Your task to perform on an android device: change the clock display to digital Image 0: 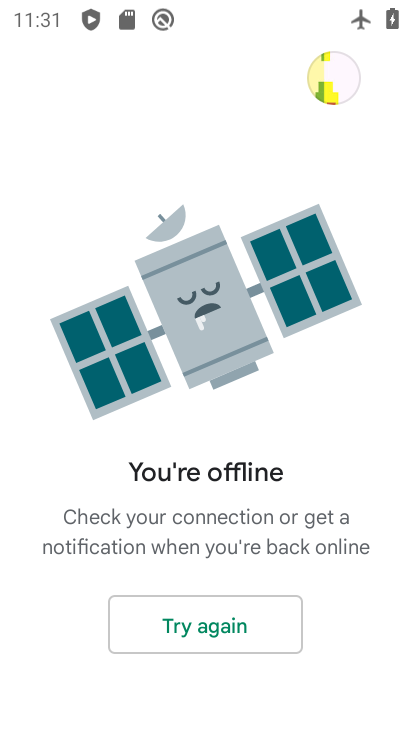
Step 0: press home button
Your task to perform on an android device: change the clock display to digital Image 1: 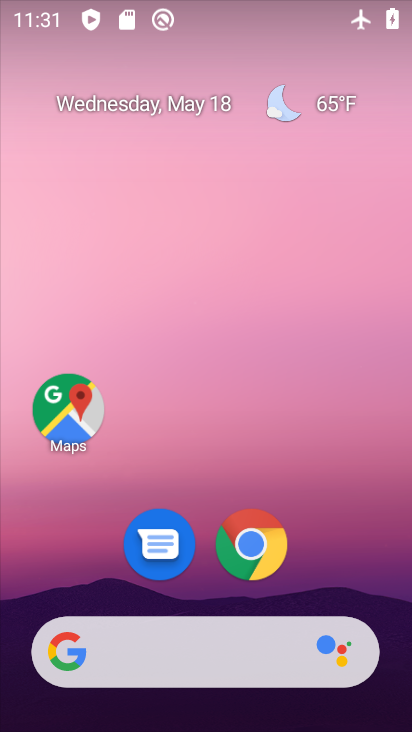
Step 1: drag from (376, 568) to (360, 117)
Your task to perform on an android device: change the clock display to digital Image 2: 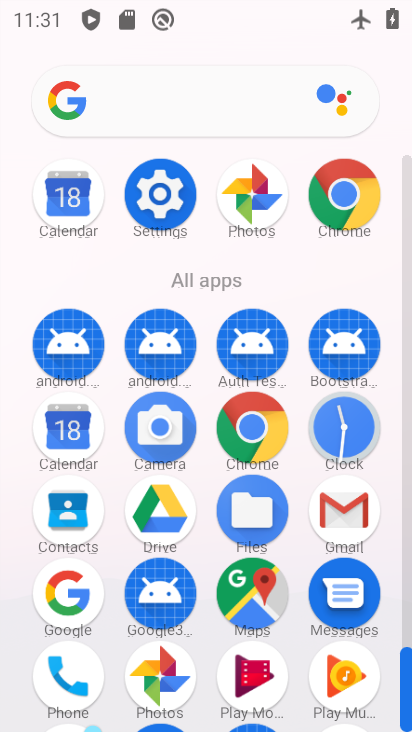
Step 2: click (354, 423)
Your task to perform on an android device: change the clock display to digital Image 3: 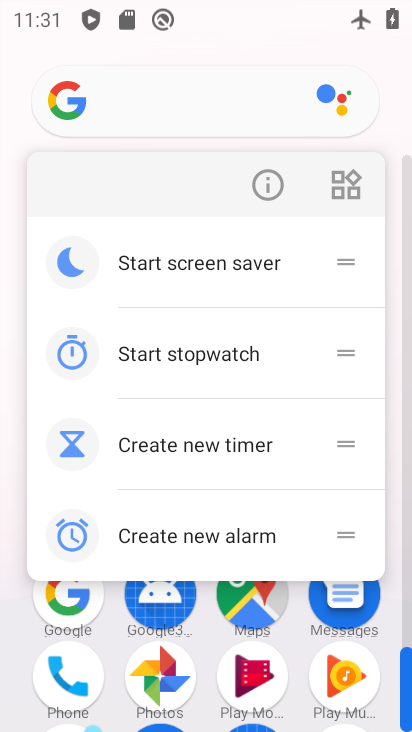
Step 3: click (396, 412)
Your task to perform on an android device: change the clock display to digital Image 4: 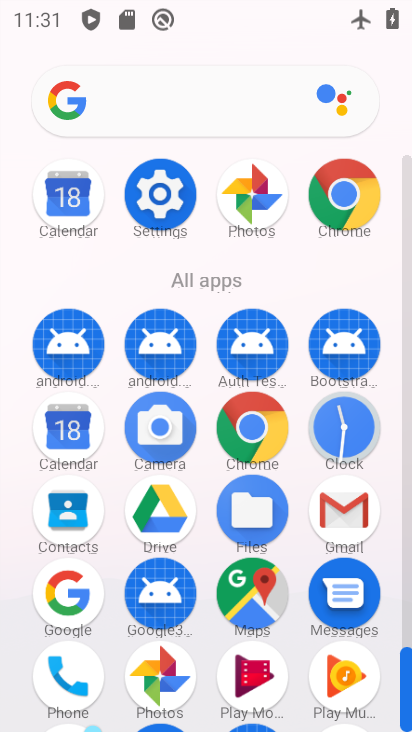
Step 4: click (338, 438)
Your task to perform on an android device: change the clock display to digital Image 5: 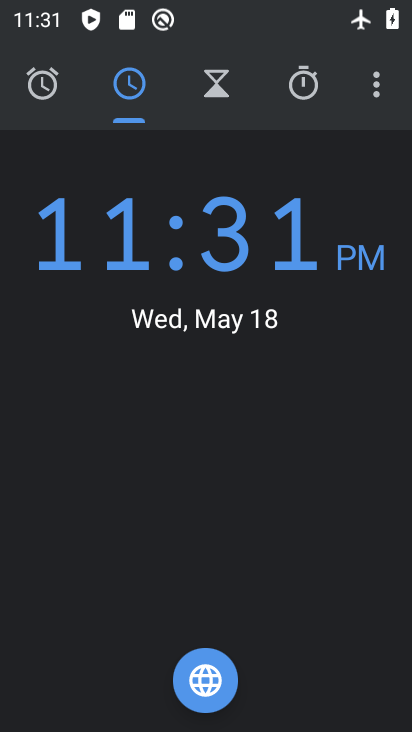
Step 5: click (382, 88)
Your task to perform on an android device: change the clock display to digital Image 6: 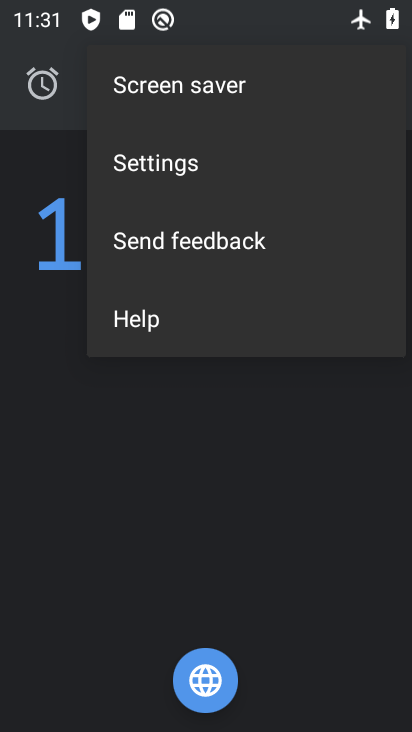
Step 6: click (206, 194)
Your task to perform on an android device: change the clock display to digital Image 7: 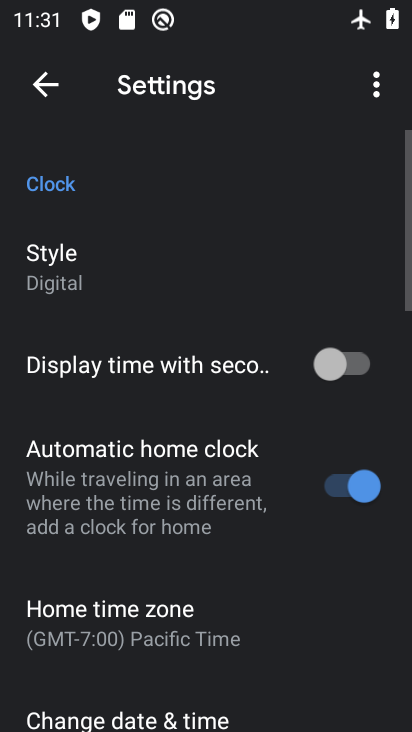
Step 7: click (88, 276)
Your task to perform on an android device: change the clock display to digital Image 8: 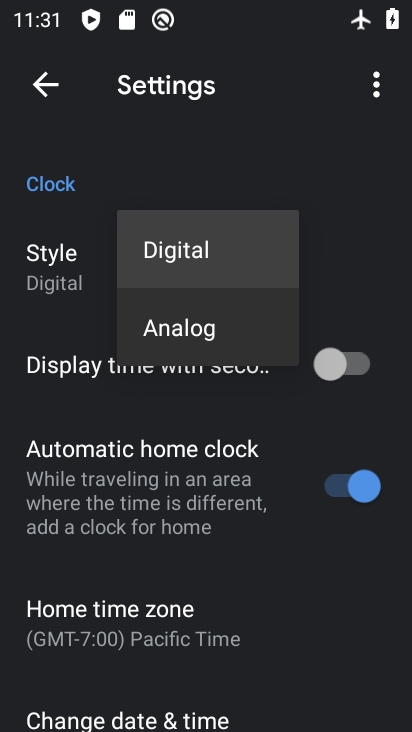
Step 8: task complete